Your task to perform on an android device: Open Reddit.com Image 0: 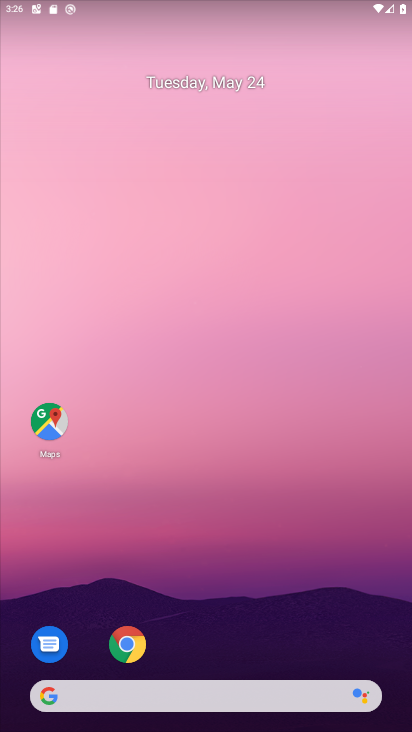
Step 0: click (170, 703)
Your task to perform on an android device: Open Reddit.com Image 1: 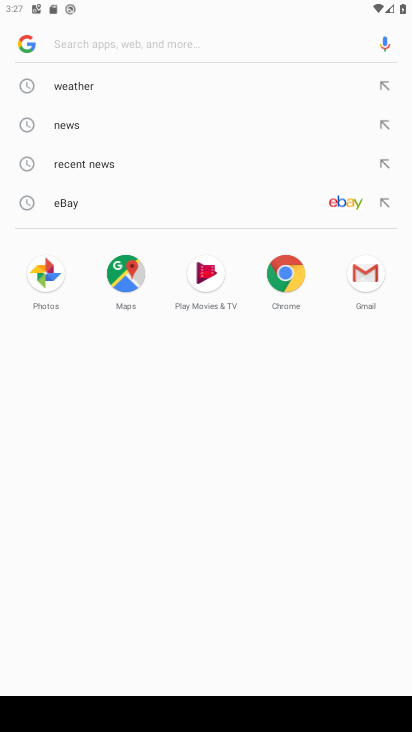
Step 1: type "reddit"
Your task to perform on an android device: Open Reddit.com Image 2: 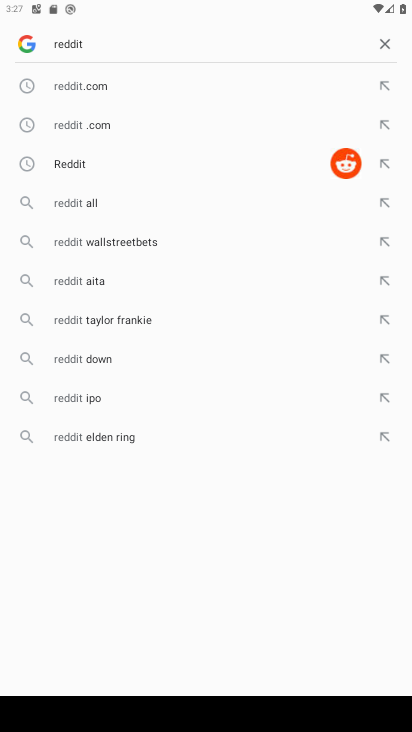
Step 2: click (209, 89)
Your task to perform on an android device: Open Reddit.com Image 3: 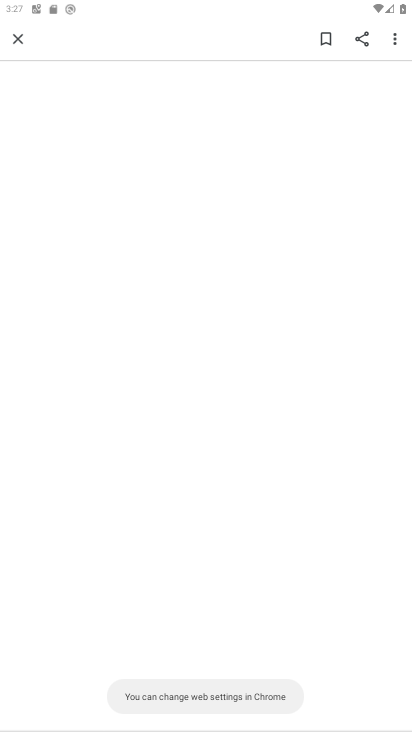
Step 3: task complete